Your task to perform on an android device: change keyboard looks Image 0: 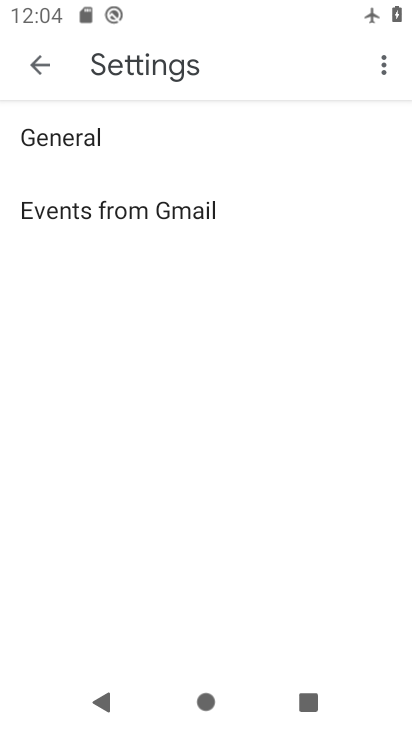
Step 0: press back button
Your task to perform on an android device: change keyboard looks Image 1: 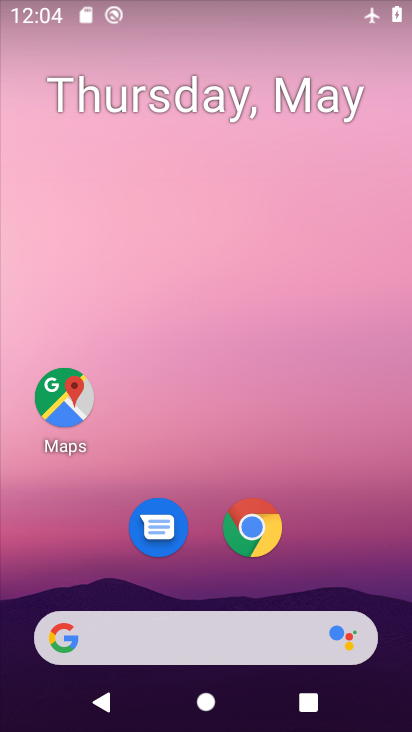
Step 1: drag from (213, 557) to (288, 30)
Your task to perform on an android device: change keyboard looks Image 2: 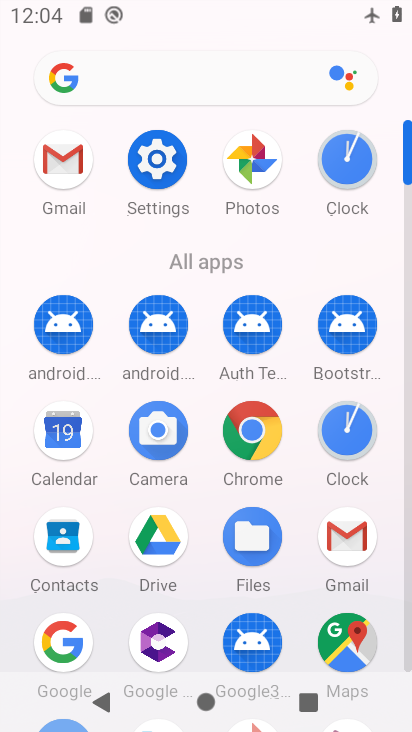
Step 2: click (134, 153)
Your task to perform on an android device: change keyboard looks Image 3: 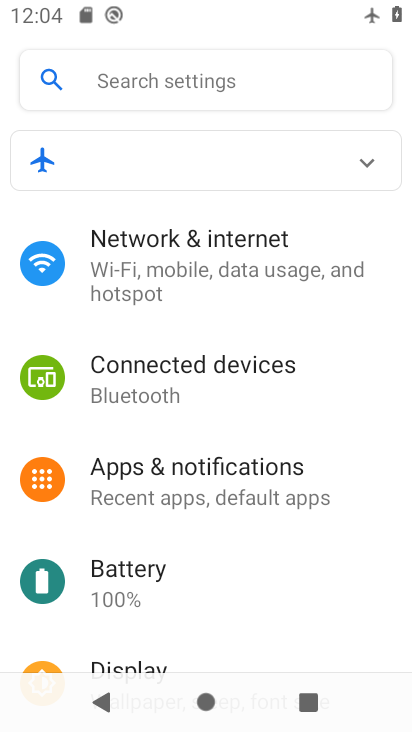
Step 3: drag from (195, 594) to (298, 98)
Your task to perform on an android device: change keyboard looks Image 4: 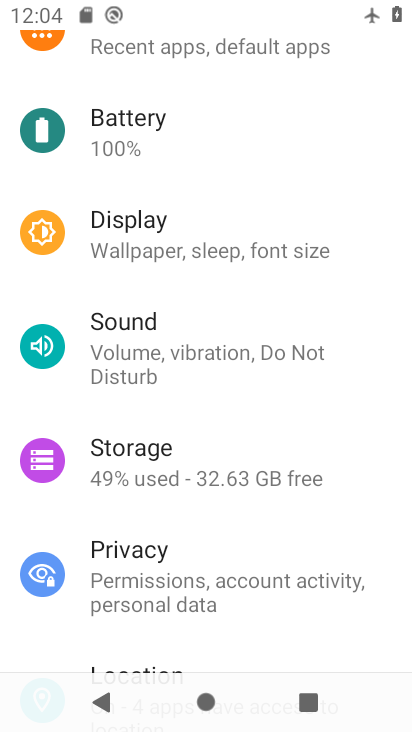
Step 4: drag from (218, 584) to (303, 131)
Your task to perform on an android device: change keyboard looks Image 5: 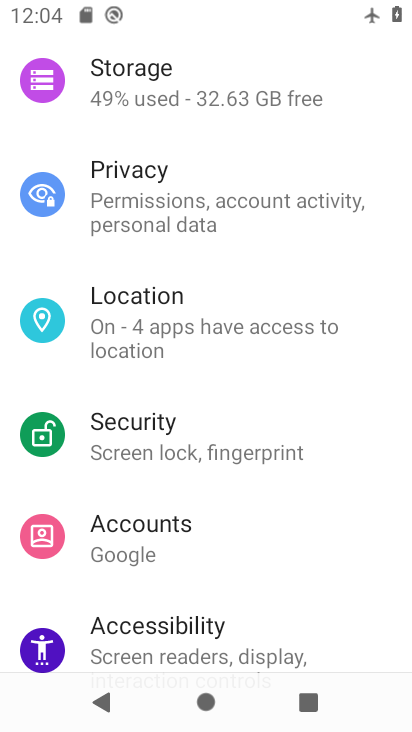
Step 5: drag from (196, 567) to (336, 18)
Your task to perform on an android device: change keyboard looks Image 6: 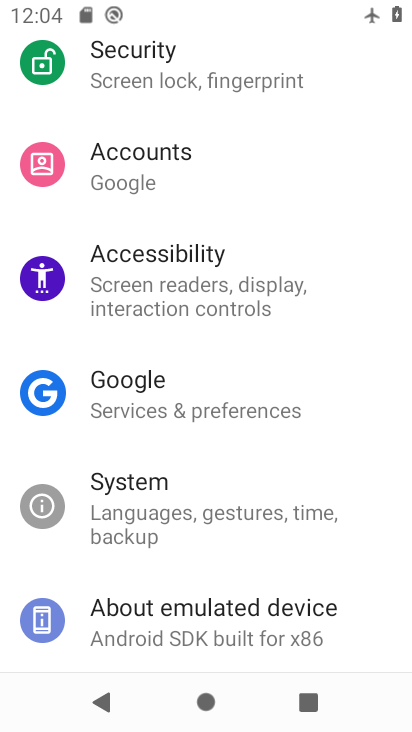
Step 6: drag from (236, 617) to (317, 3)
Your task to perform on an android device: change keyboard looks Image 7: 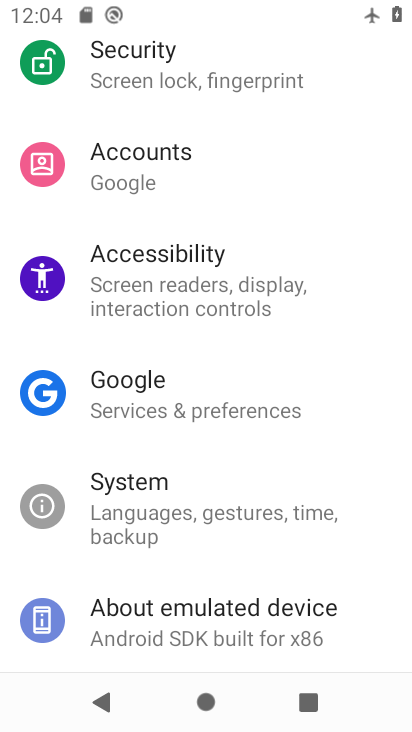
Step 7: drag from (234, 634) to (292, 139)
Your task to perform on an android device: change keyboard looks Image 8: 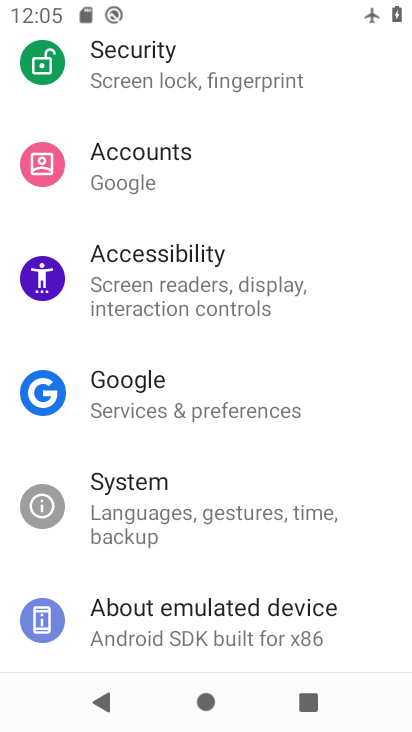
Step 8: click (170, 519)
Your task to perform on an android device: change keyboard looks Image 9: 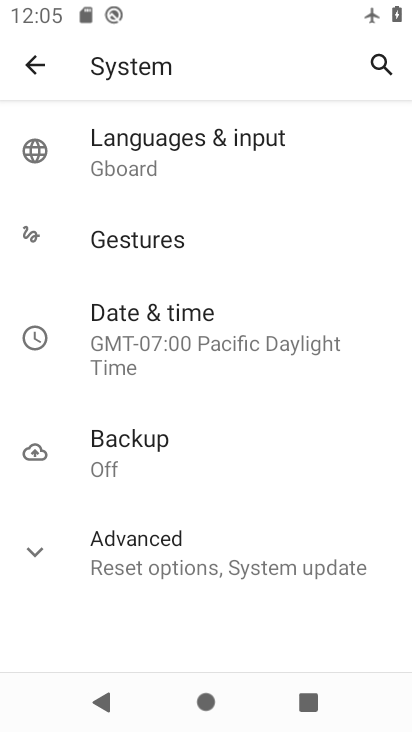
Step 9: click (159, 155)
Your task to perform on an android device: change keyboard looks Image 10: 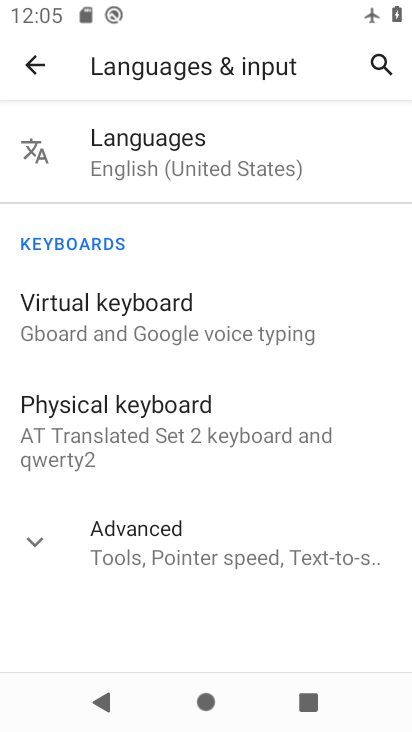
Step 10: click (100, 301)
Your task to perform on an android device: change keyboard looks Image 11: 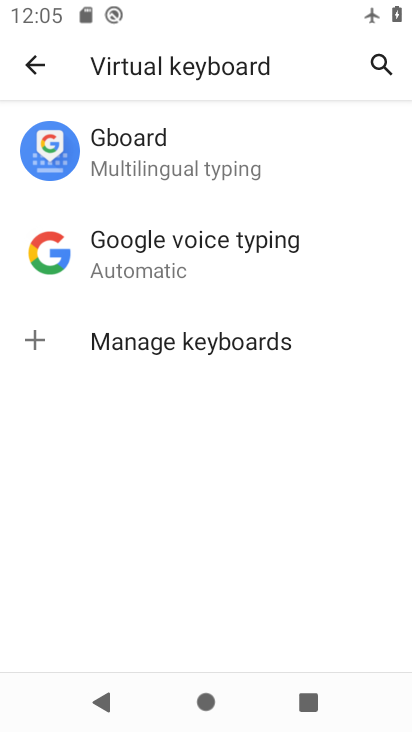
Step 11: click (171, 183)
Your task to perform on an android device: change keyboard looks Image 12: 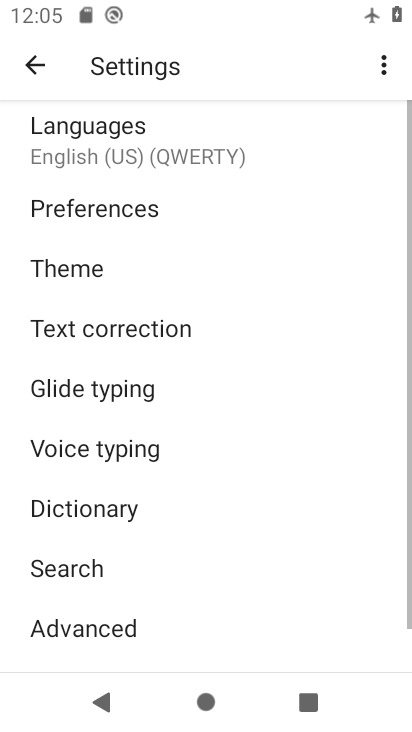
Step 12: click (72, 264)
Your task to perform on an android device: change keyboard looks Image 13: 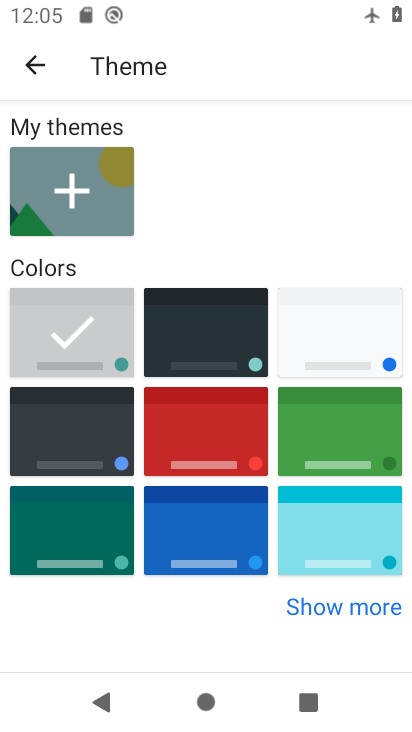
Step 13: click (183, 426)
Your task to perform on an android device: change keyboard looks Image 14: 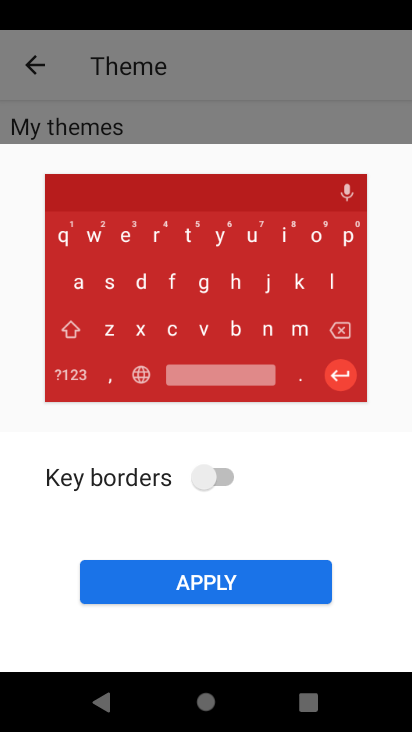
Step 14: click (209, 578)
Your task to perform on an android device: change keyboard looks Image 15: 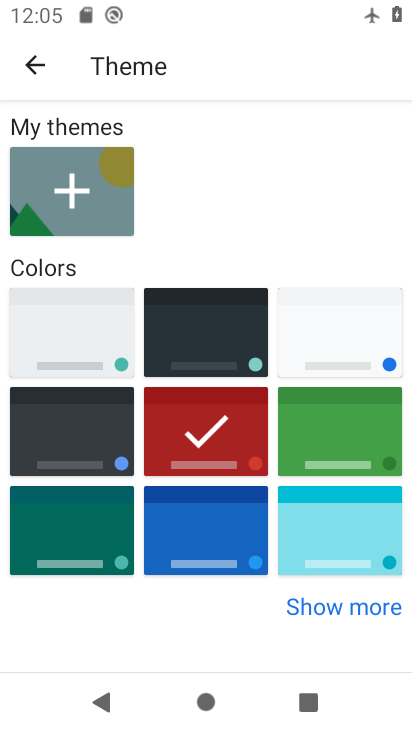
Step 15: task complete